Your task to perform on an android device: Go to ESPN.com Image 0: 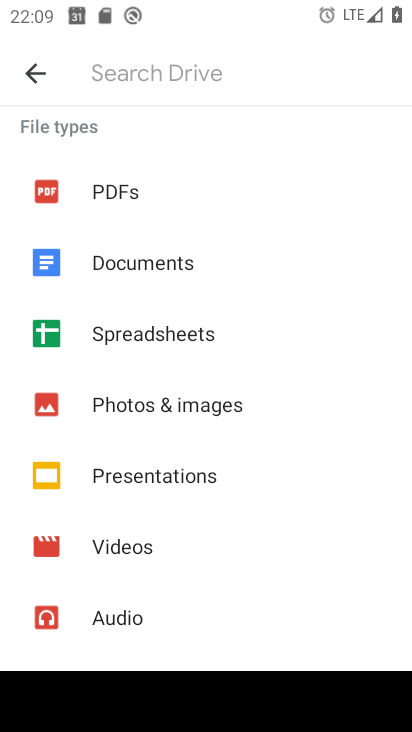
Step 0: press home button
Your task to perform on an android device: Go to ESPN.com Image 1: 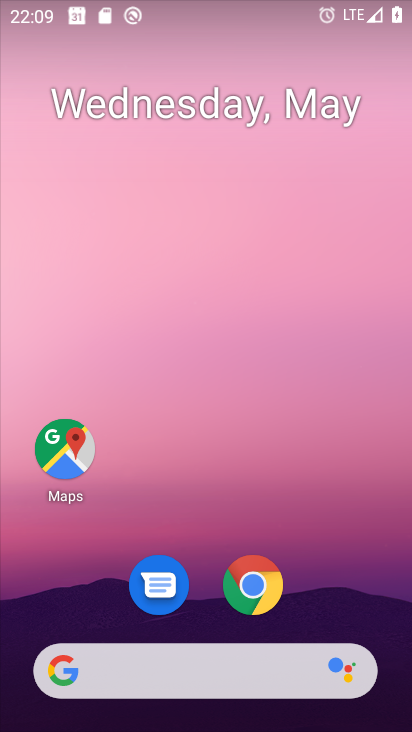
Step 1: click (242, 670)
Your task to perform on an android device: Go to ESPN.com Image 2: 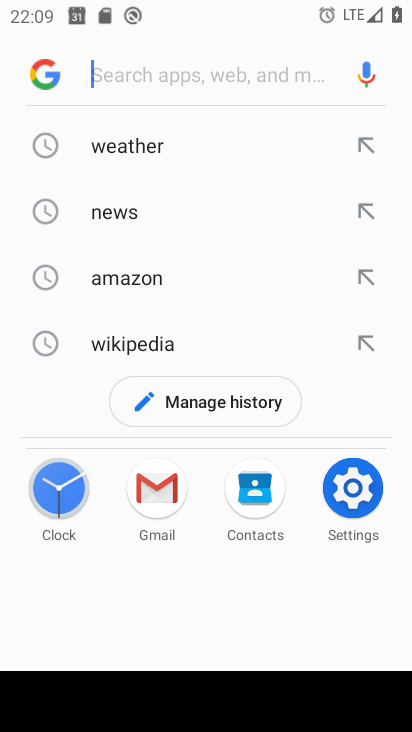
Step 2: type "espm.com"
Your task to perform on an android device: Go to ESPN.com Image 3: 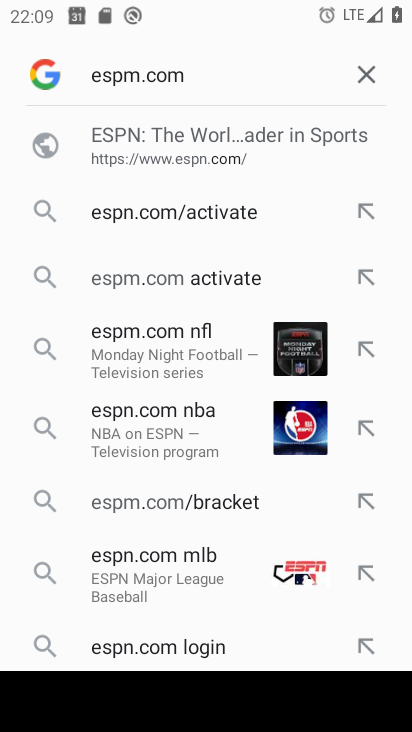
Step 3: click (101, 143)
Your task to perform on an android device: Go to ESPN.com Image 4: 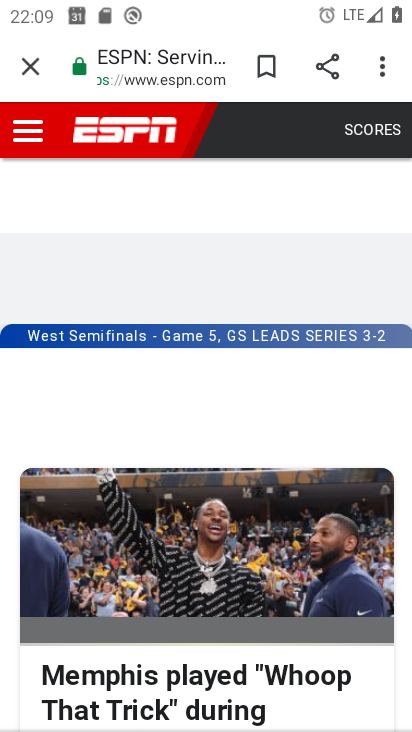
Step 4: task complete